Your task to perform on an android device: Go to battery settings Image 0: 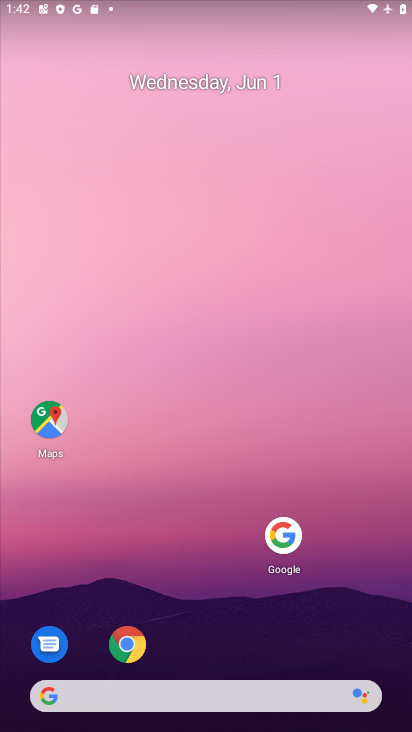
Step 0: press home button
Your task to perform on an android device: Go to battery settings Image 1: 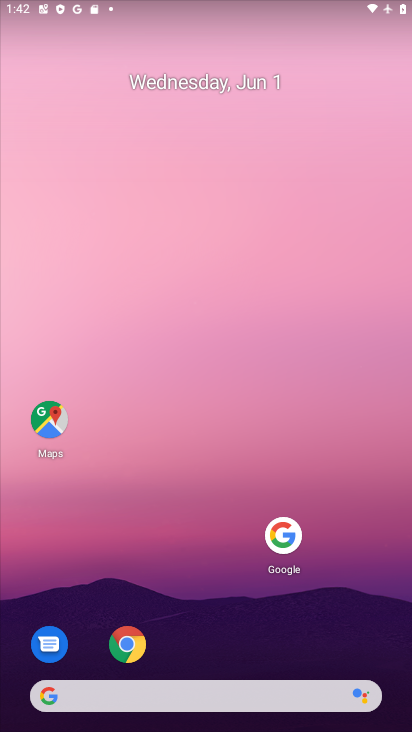
Step 1: drag from (154, 690) to (276, 149)
Your task to perform on an android device: Go to battery settings Image 2: 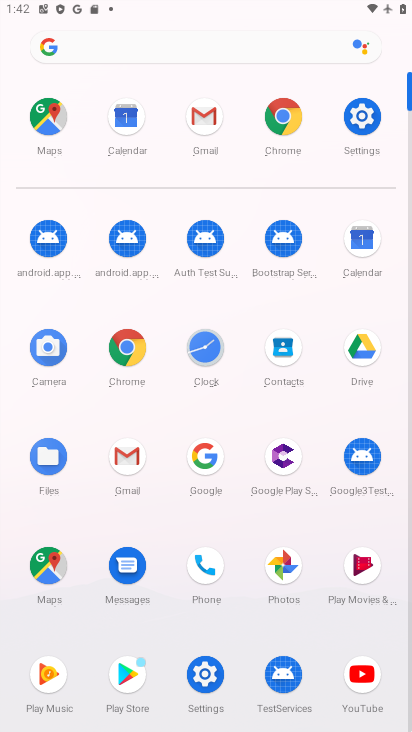
Step 2: click (370, 116)
Your task to perform on an android device: Go to battery settings Image 3: 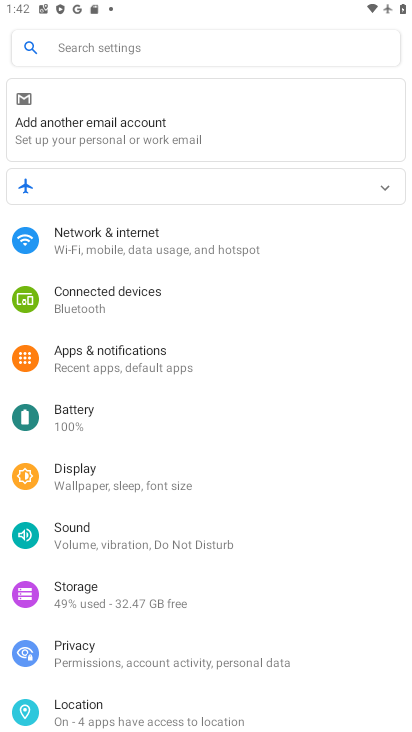
Step 3: click (78, 415)
Your task to perform on an android device: Go to battery settings Image 4: 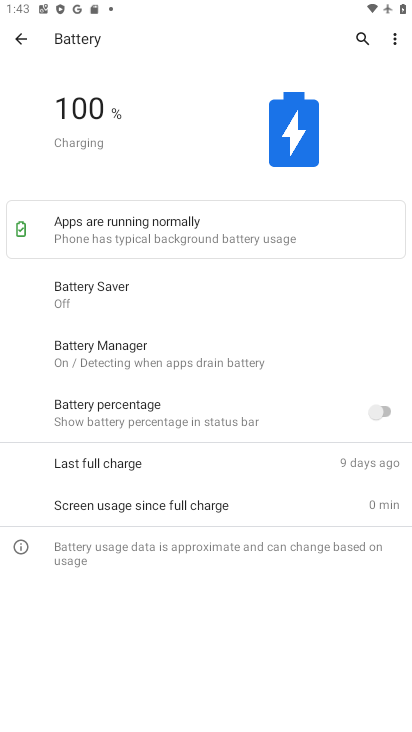
Step 4: task complete